Your task to perform on an android device: Play the latest video from the Washington Post Image 0: 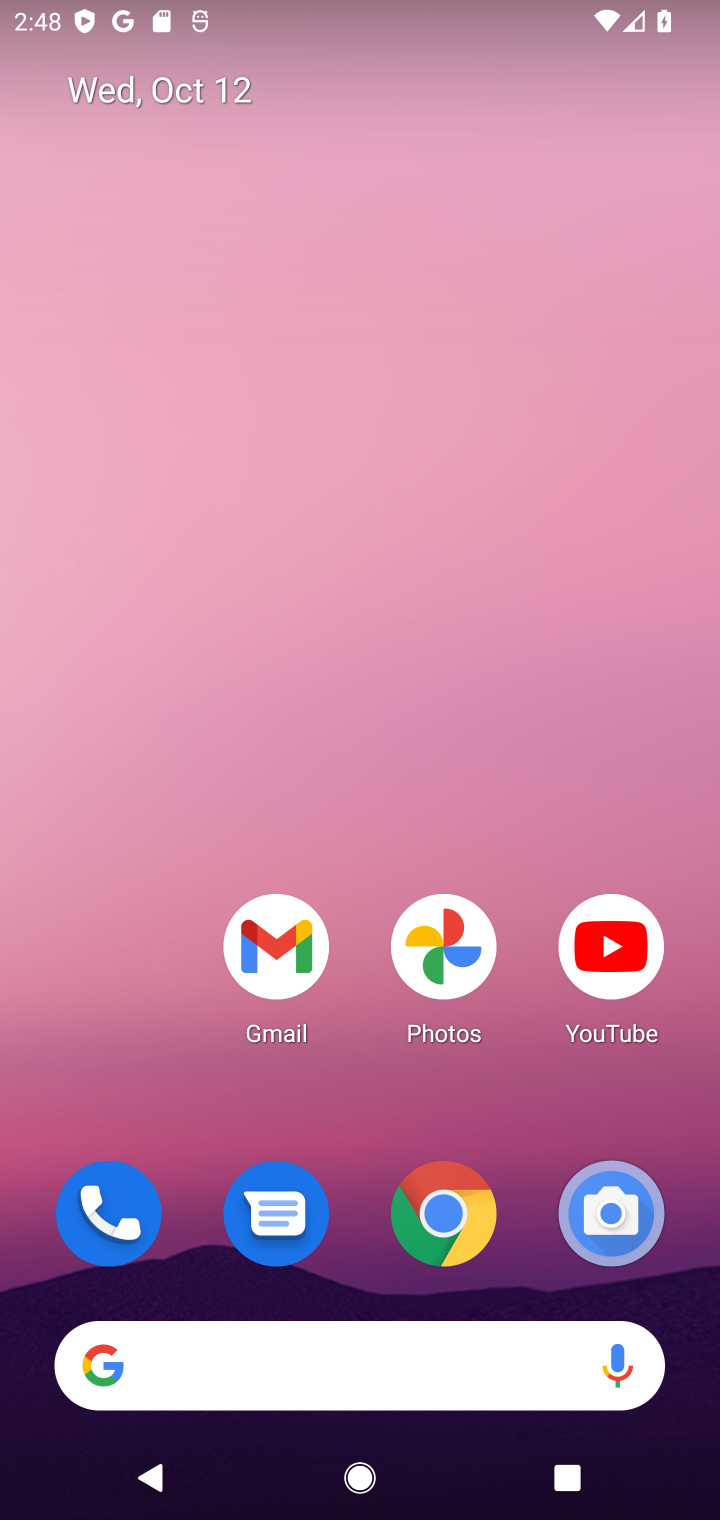
Step 0: click (616, 953)
Your task to perform on an android device: Play the latest video from the Washington Post Image 1: 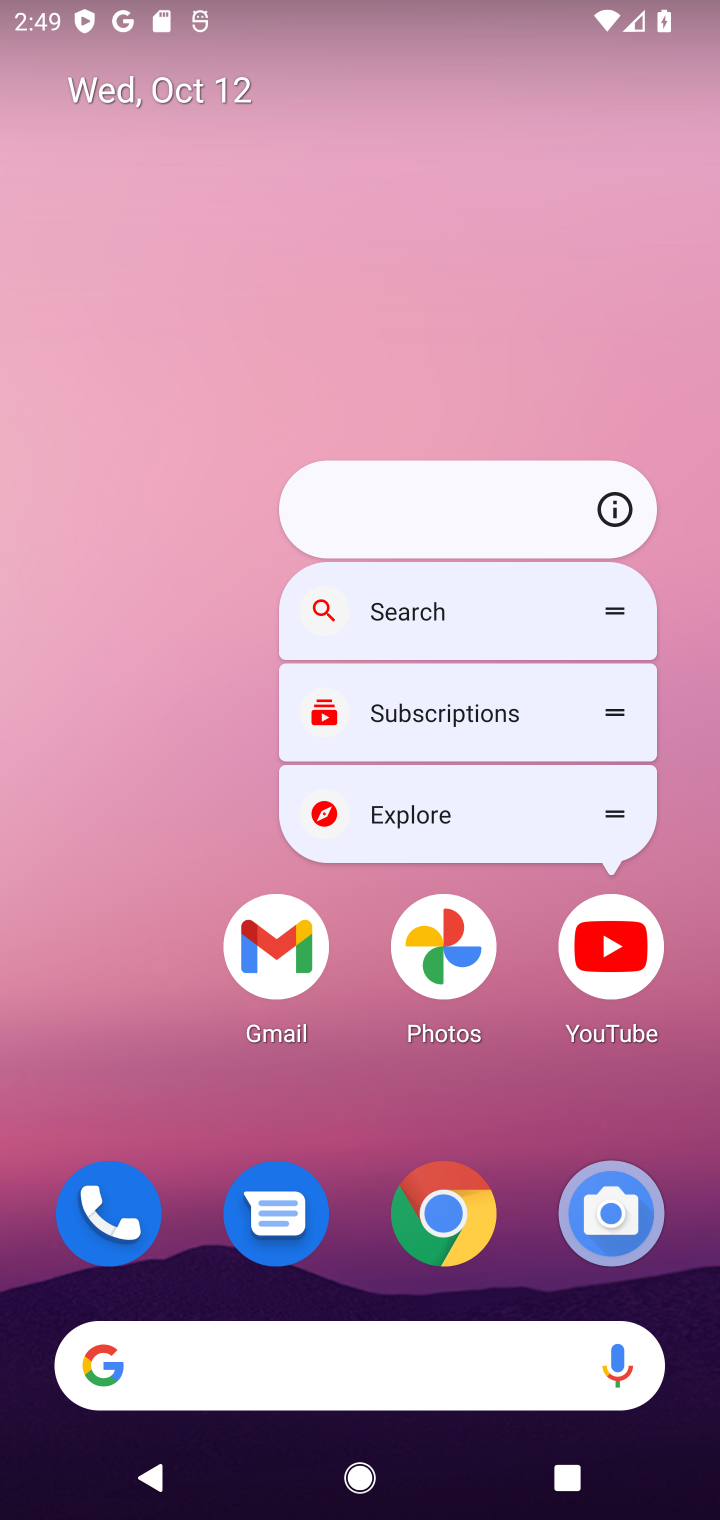
Step 1: click (606, 1023)
Your task to perform on an android device: Play the latest video from the Washington Post Image 2: 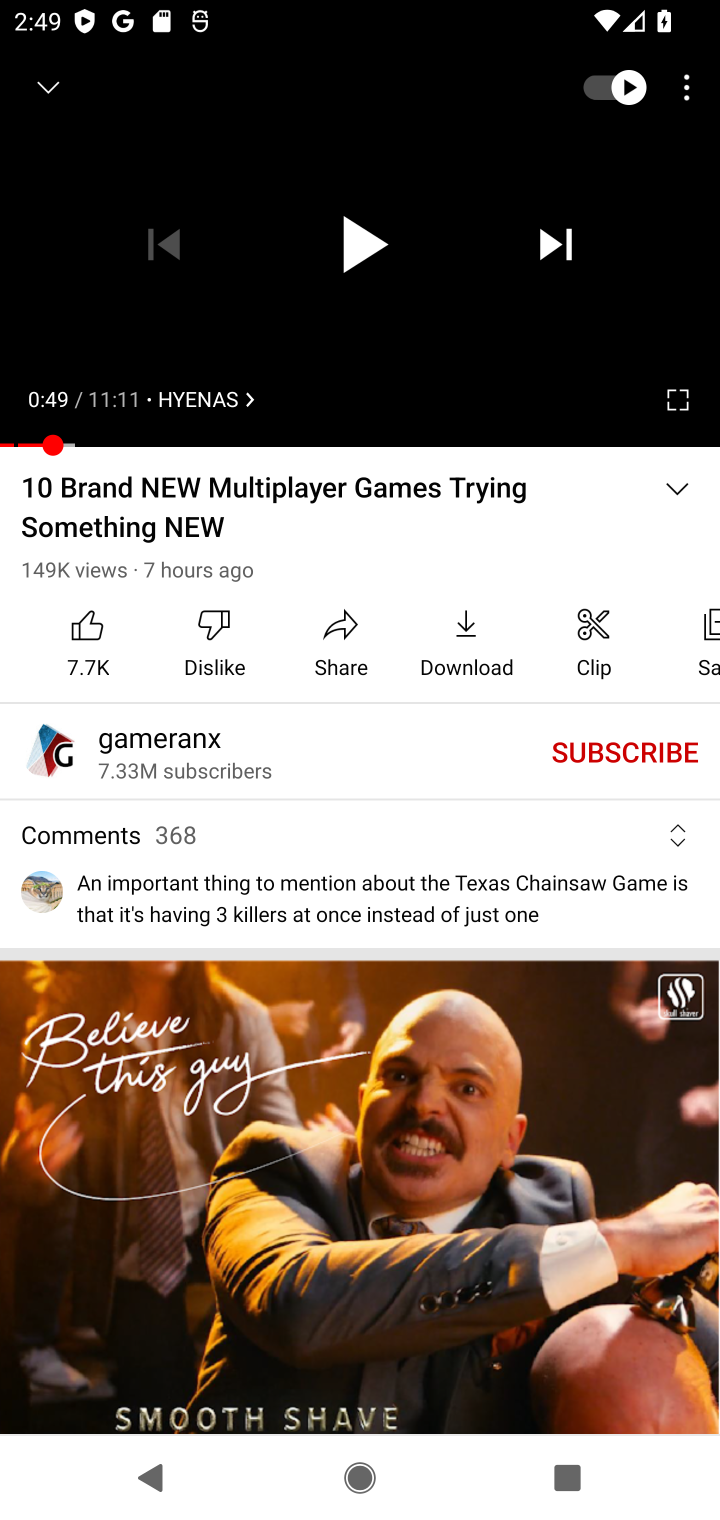
Step 2: click (30, 80)
Your task to perform on an android device: Play the latest video from the Washington Post Image 3: 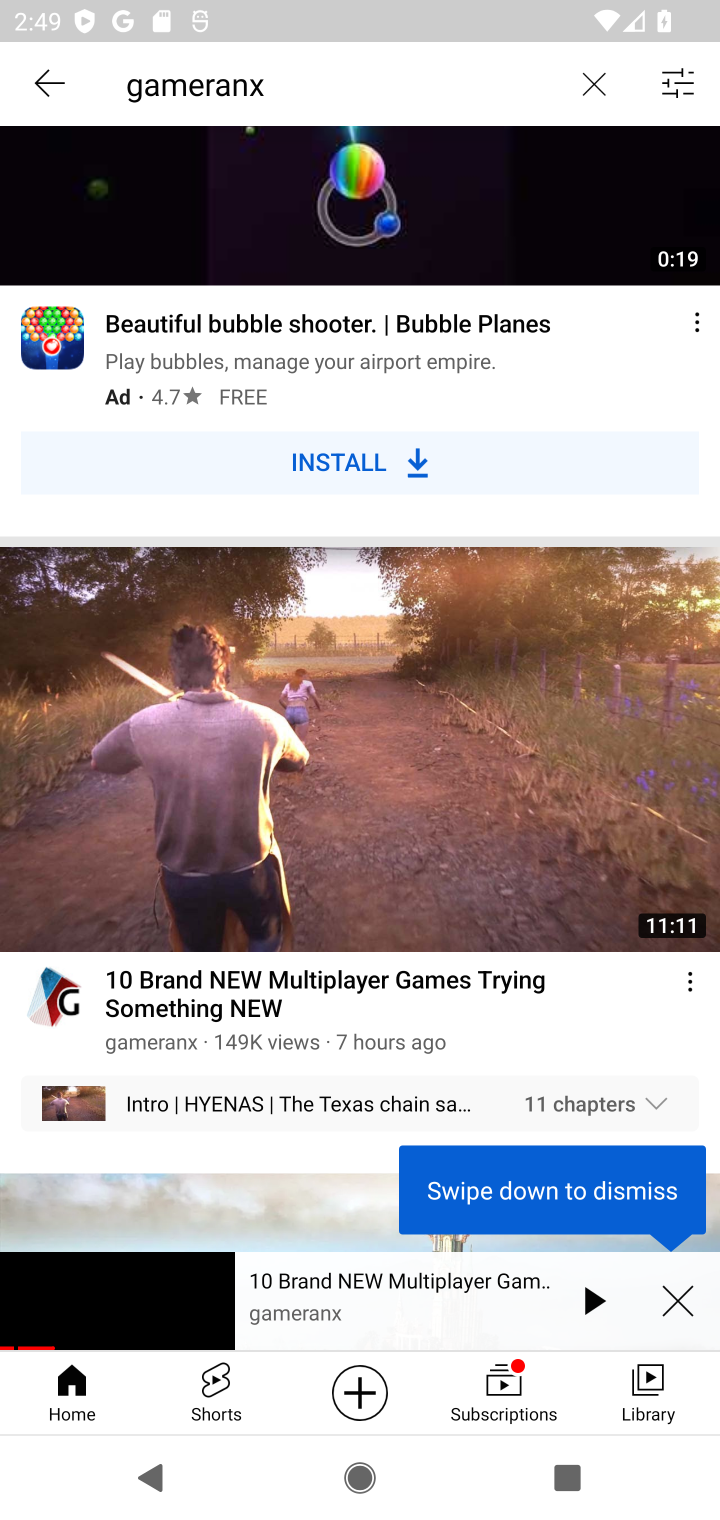
Step 3: click (599, 84)
Your task to perform on an android device: Play the latest video from the Washington Post Image 4: 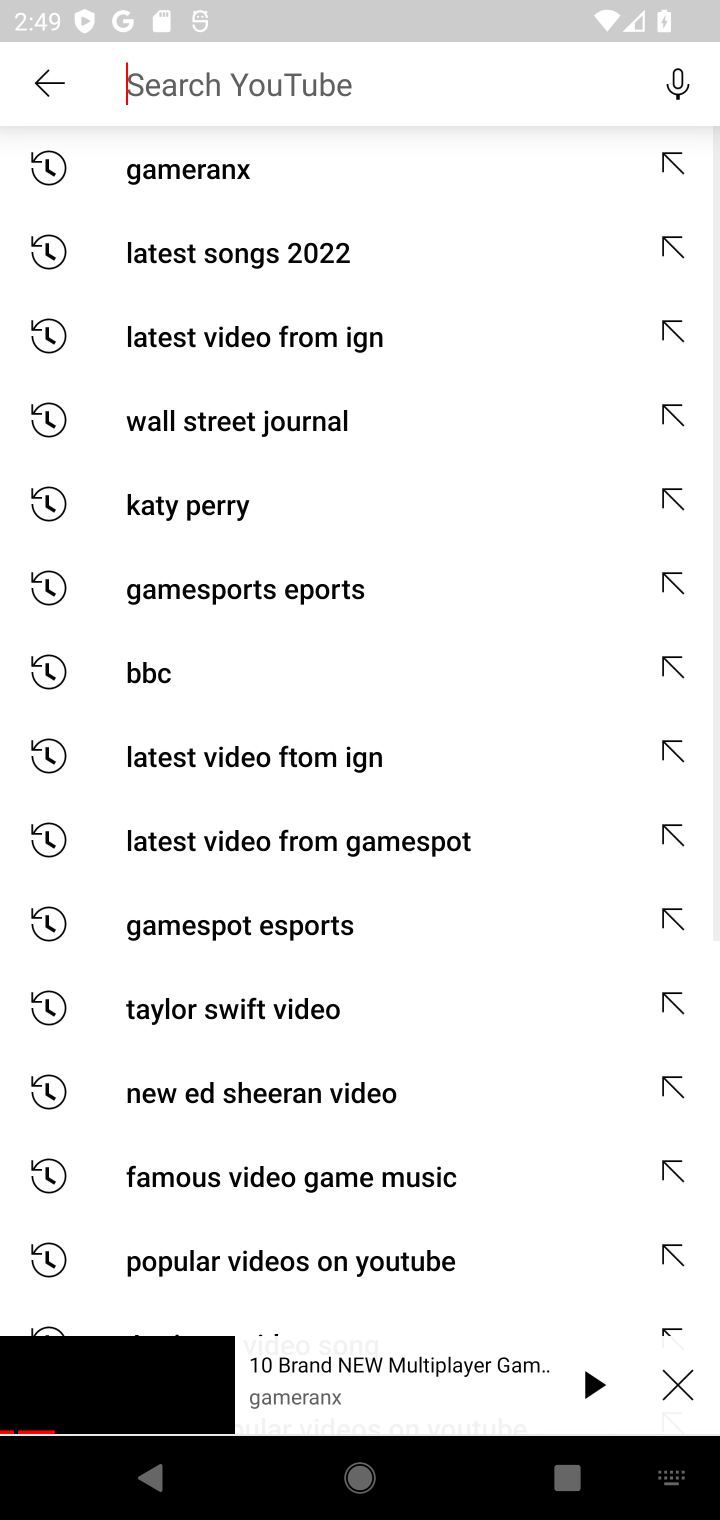
Step 4: click (498, 93)
Your task to perform on an android device: Play the latest video from the Washington Post Image 5: 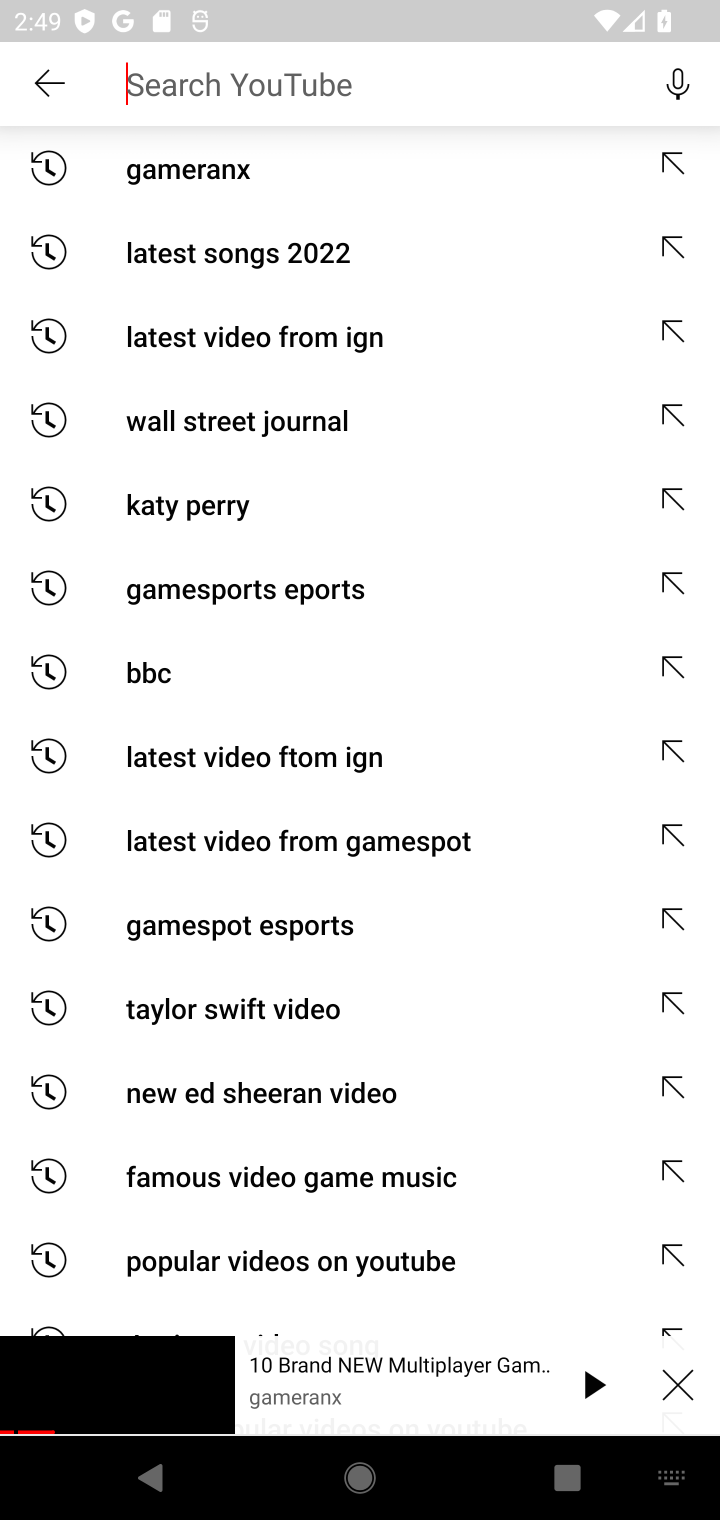
Step 5: click (461, 80)
Your task to perform on an android device: Play the latest video from the Washington Post Image 6: 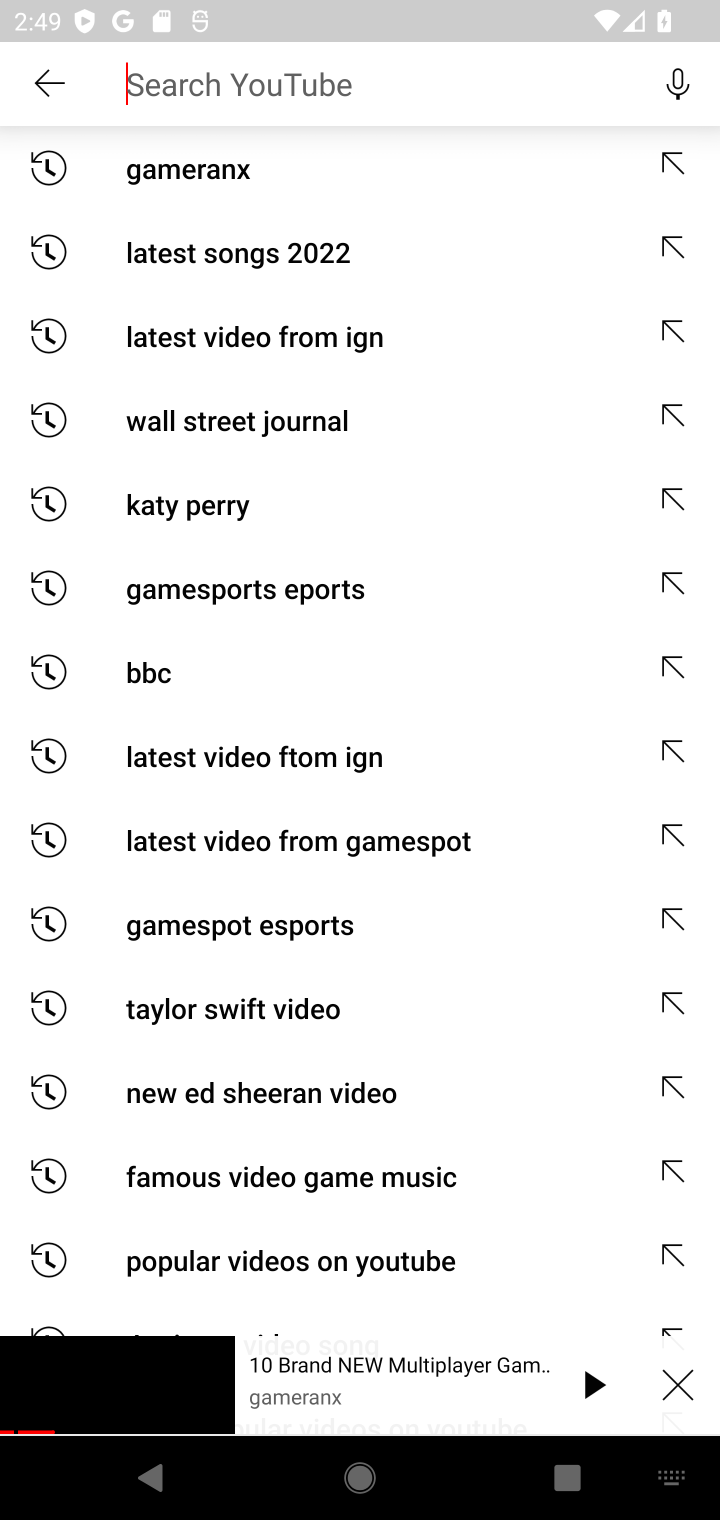
Step 6: type "latest video from the Washington Post"
Your task to perform on an android device: Play the latest video from the Washington Post Image 7: 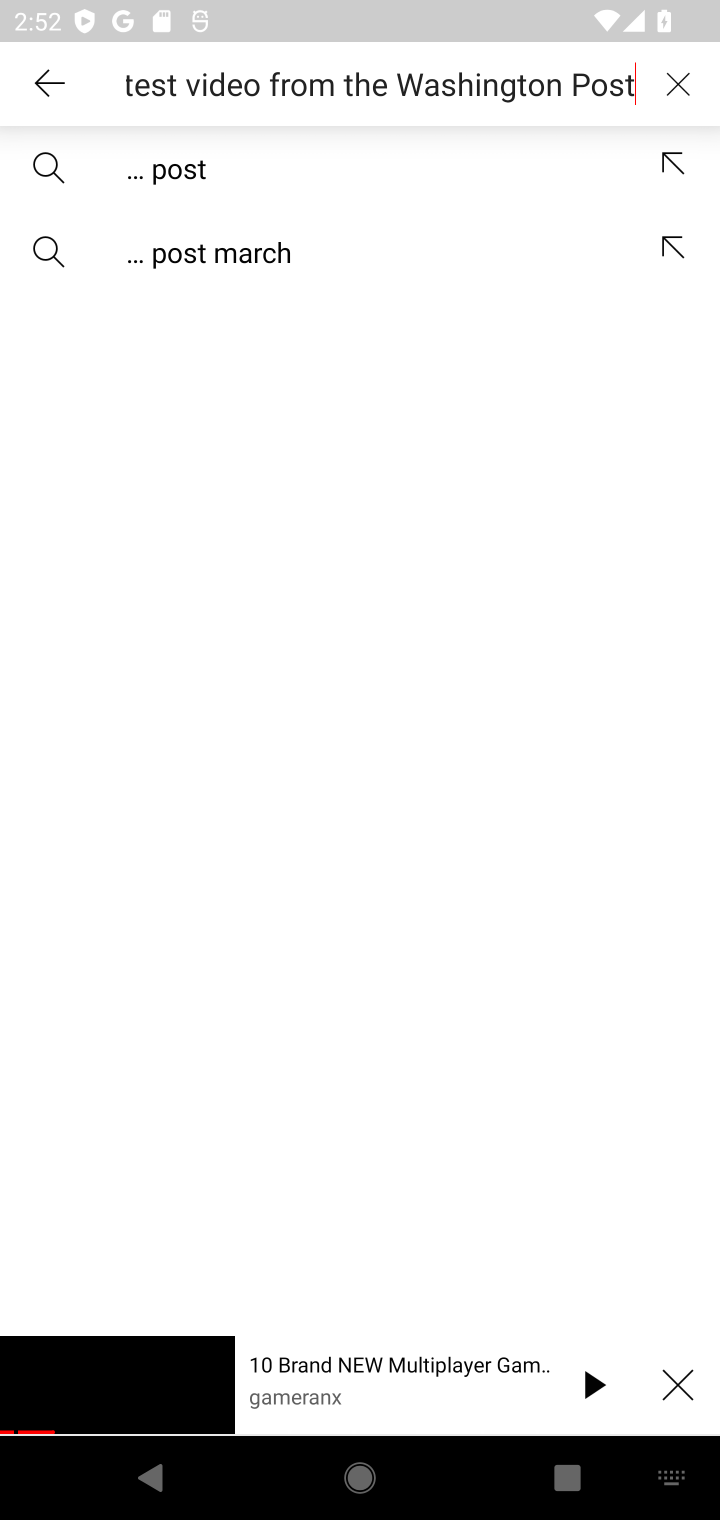
Step 7: click (227, 164)
Your task to perform on an android device: Play the latest video from the Washington Post Image 8: 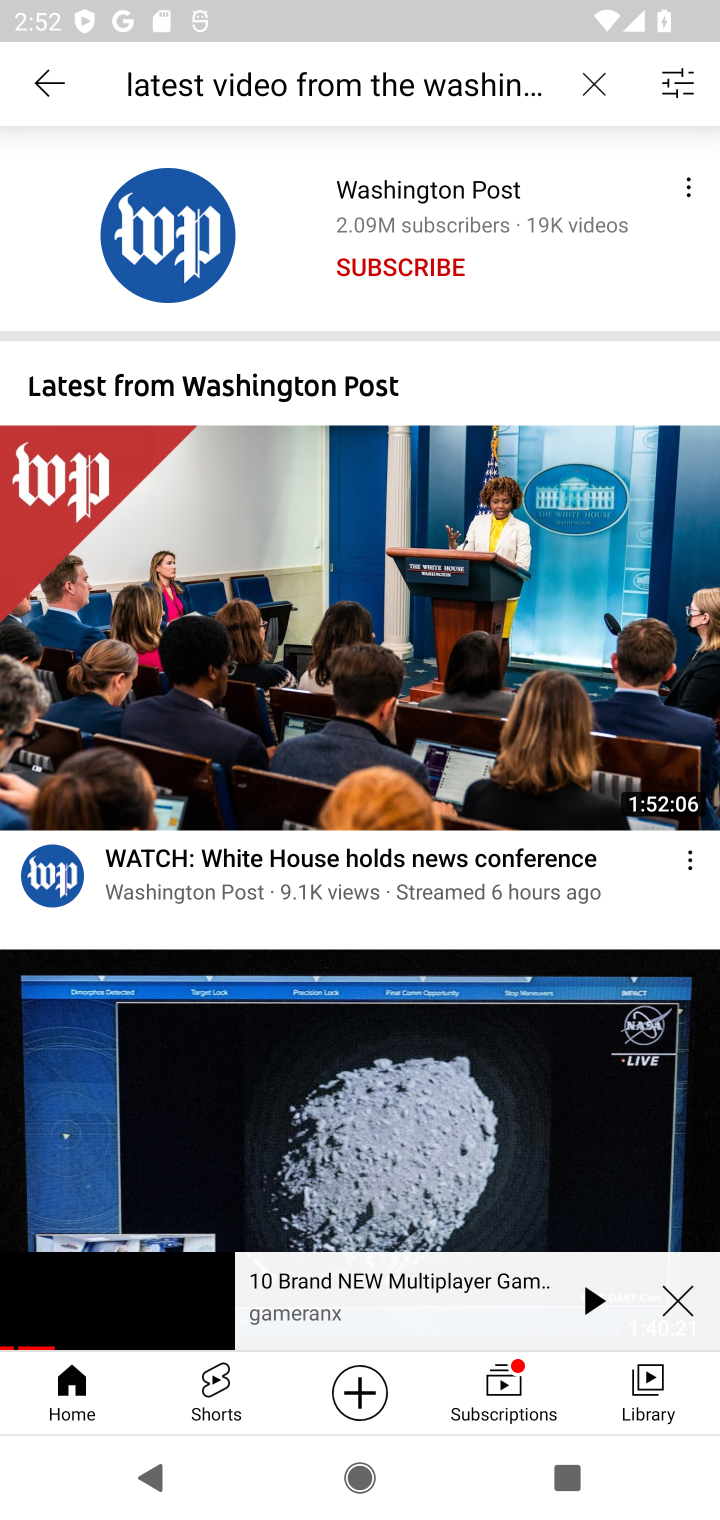
Step 8: click (380, 606)
Your task to perform on an android device: Play the latest video from the Washington Post Image 9: 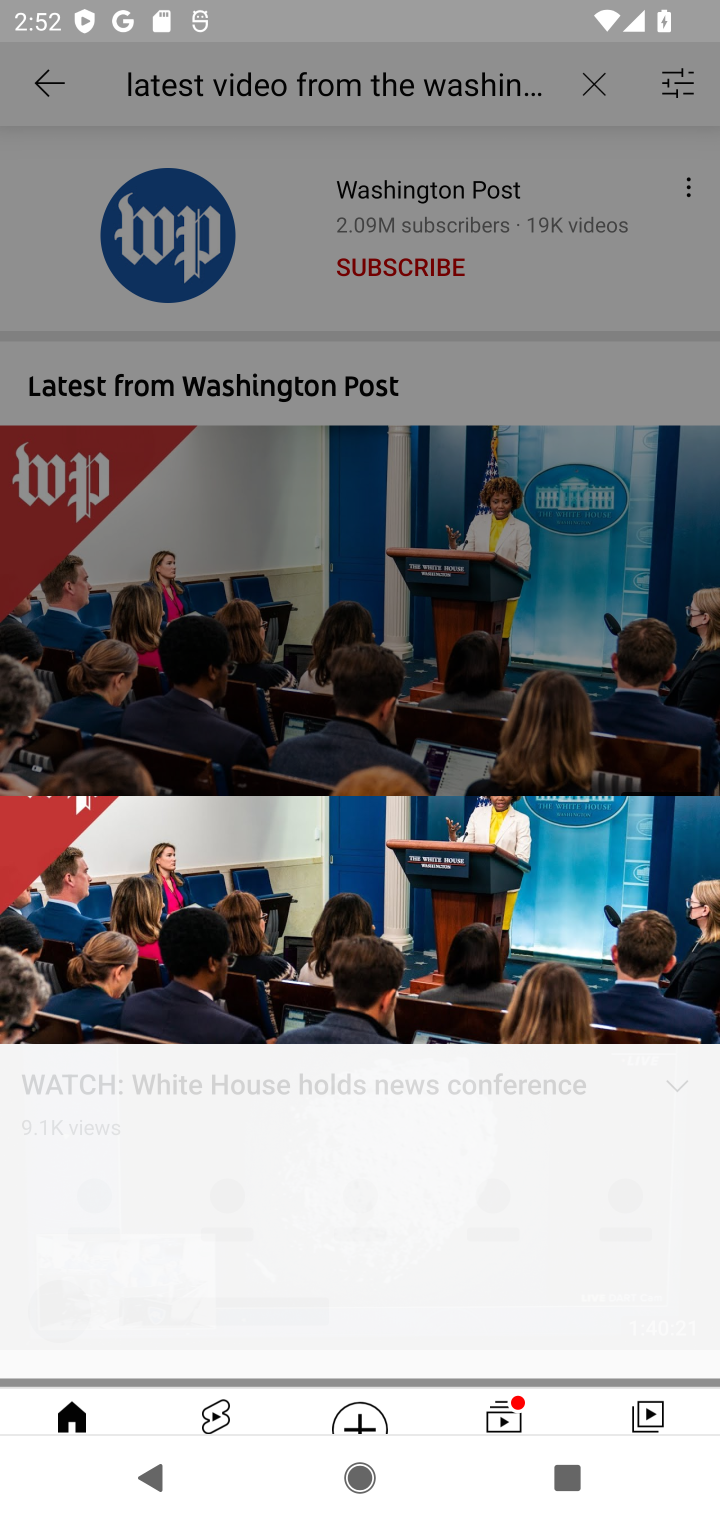
Step 9: task complete